Your task to perform on an android device: turn on showing notifications on the lock screen Image 0: 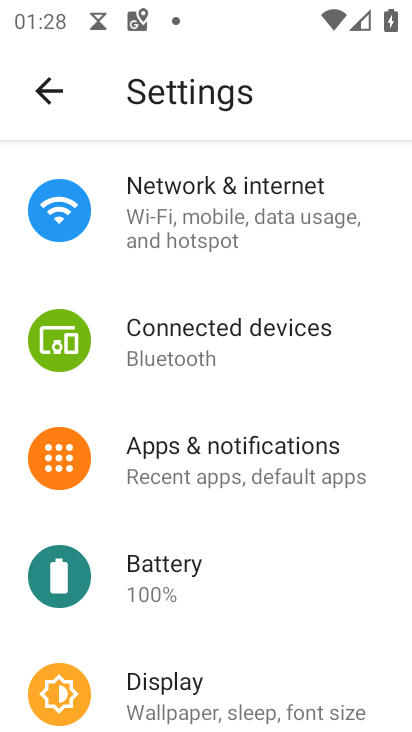
Step 0: click (196, 477)
Your task to perform on an android device: turn on showing notifications on the lock screen Image 1: 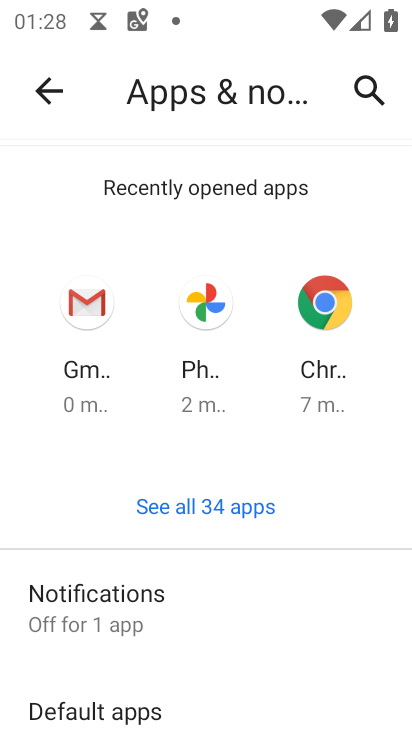
Step 1: click (154, 609)
Your task to perform on an android device: turn on showing notifications on the lock screen Image 2: 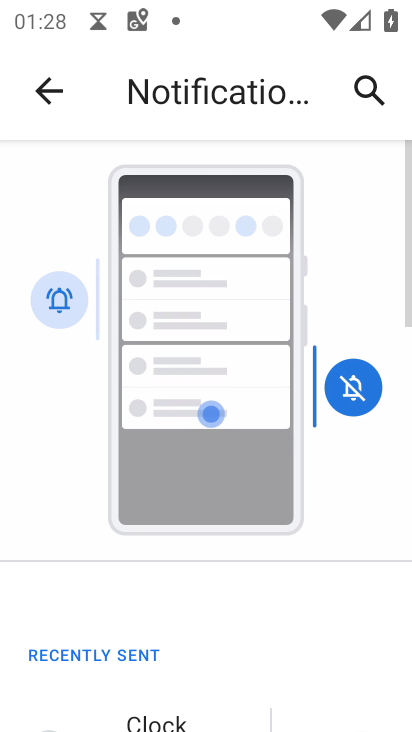
Step 2: drag from (300, 610) to (268, 424)
Your task to perform on an android device: turn on showing notifications on the lock screen Image 3: 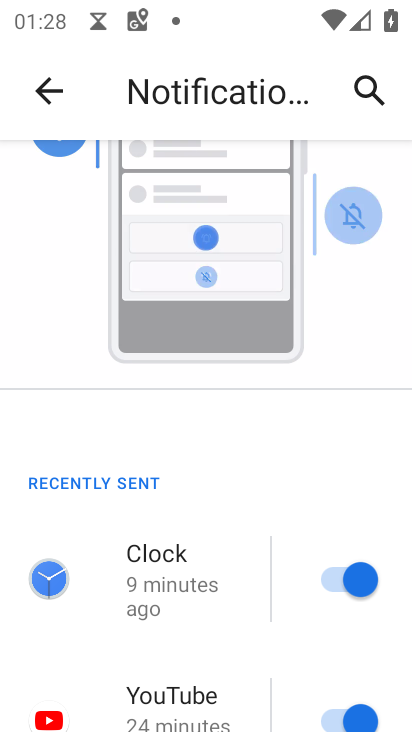
Step 3: drag from (248, 707) to (258, 424)
Your task to perform on an android device: turn on showing notifications on the lock screen Image 4: 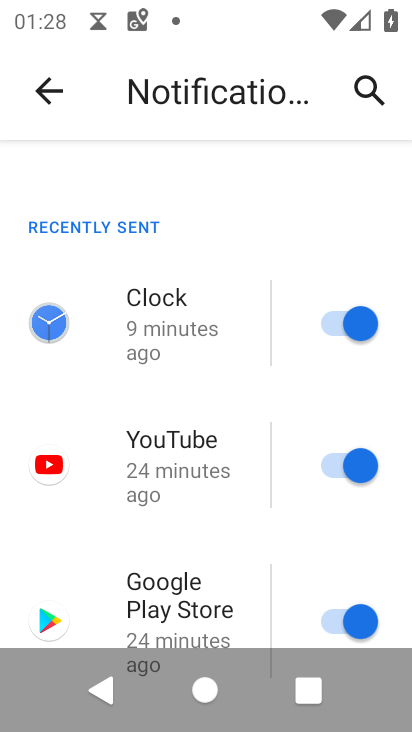
Step 4: drag from (258, 593) to (287, 182)
Your task to perform on an android device: turn on showing notifications on the lock screen Image 5: 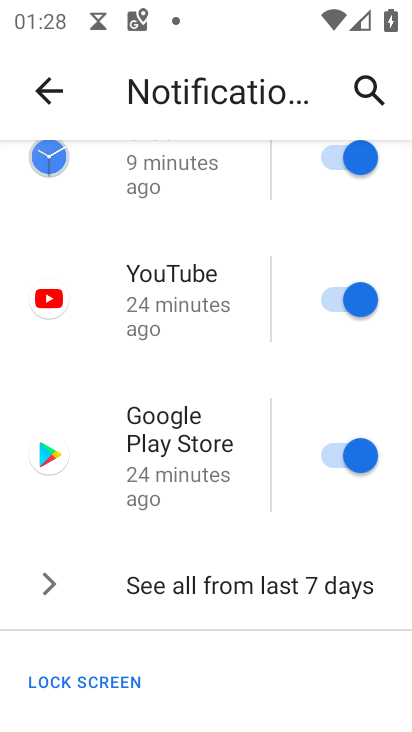
Step 5: click (276, 386)
Your task to perform on an android device: turn on showing notifications on the lock screen Image 6: 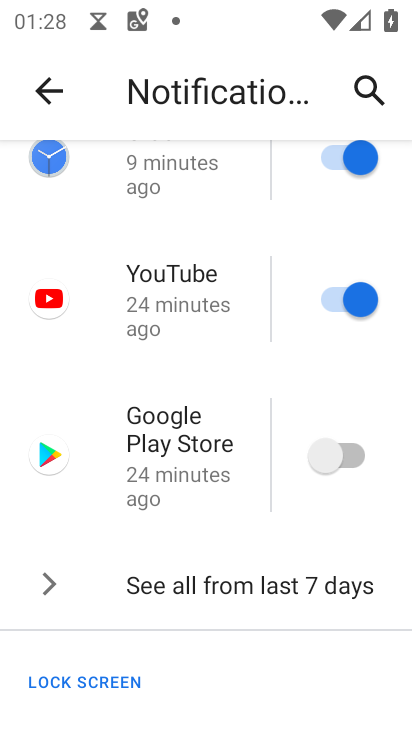
Step 6: drag from (282, 689) to (241, 297)
Your task to perform on an android device: turn on showing notifications on the lock screen Image 7: 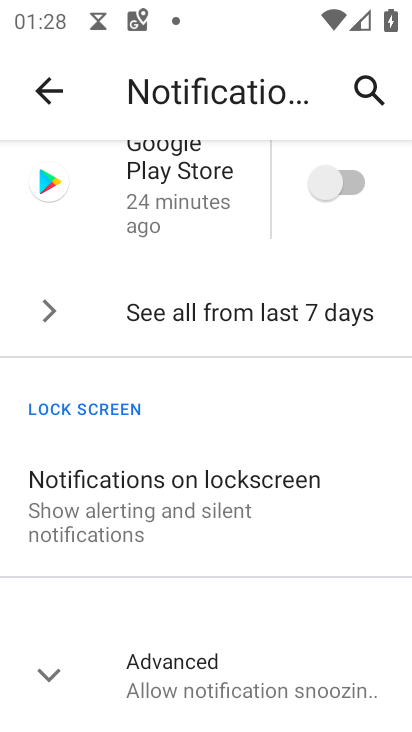
Step 7: click (220, 506)
Your task to perform on an android device: turn on showing notifications on the lock screen Image 8: 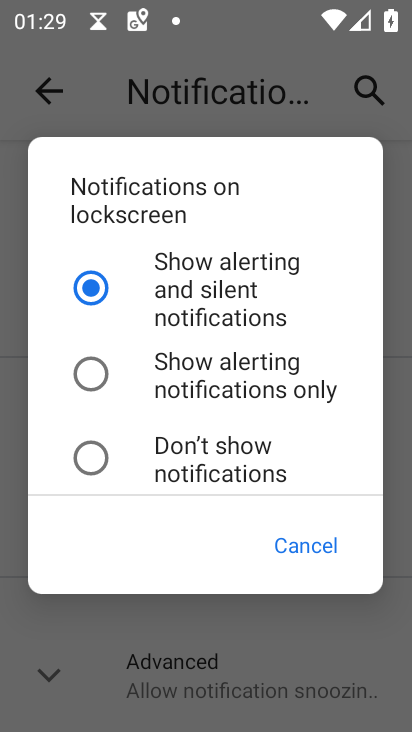
Step 8: click (93, 371)
Your task to perform on an android device: turn on showing notifications on the lock screen Image 9: 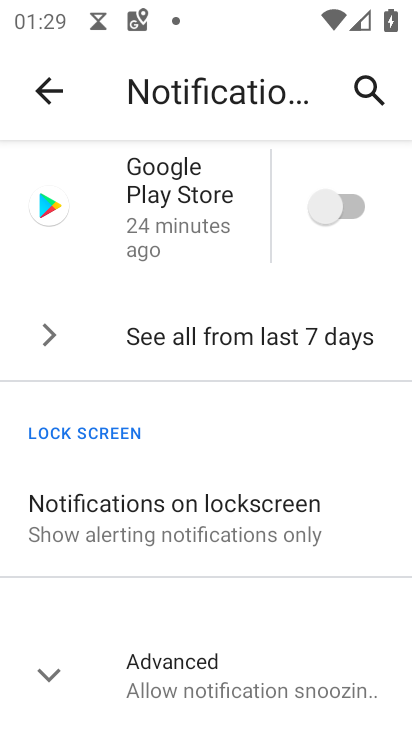
Step 9: task complete